Your task to perform on an android device: set the timer Image 0: 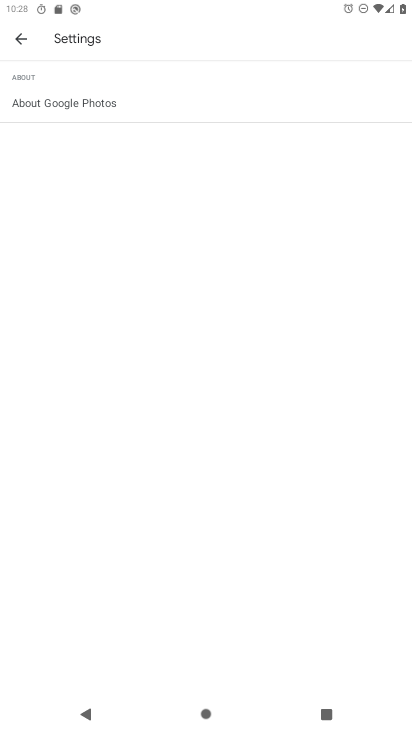
Step 0: press home button
Your task to perform on an android device: set the timer Image 1: 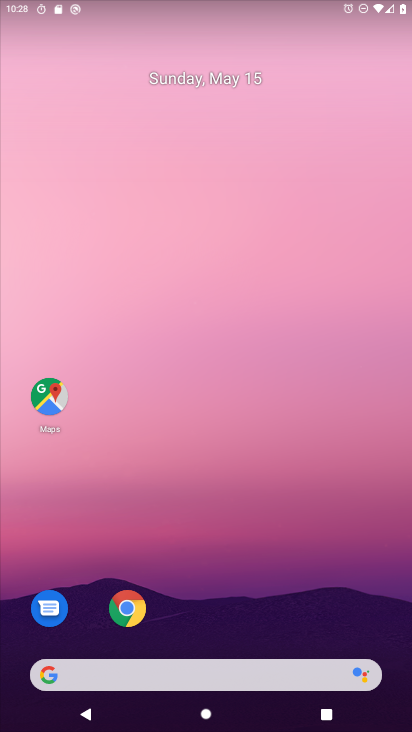
Step 1: drag from (374, 640) to (368, 115)
Your task to perform on an android device: set the timer Image 2: 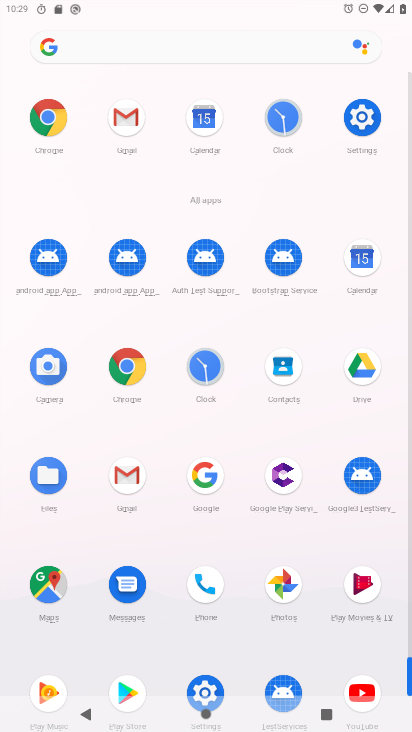
Step 2: click (285, 110)
Your task to perform on an android device: set the timer Image 3: 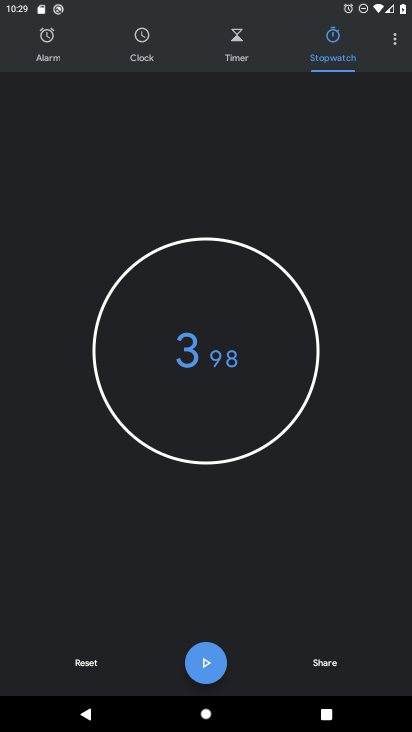
Step 3: click (272, 47)
Your task to perform on an android device: set the timer Image 4: 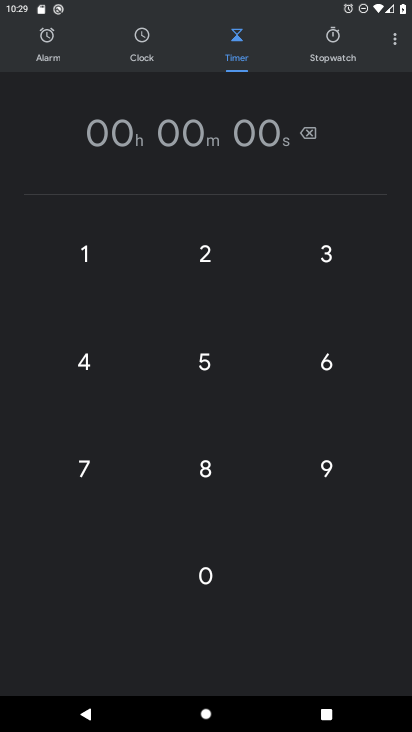
Step 4: click (88, 268)
Your task to perform on an android device: set the timer Image 5: 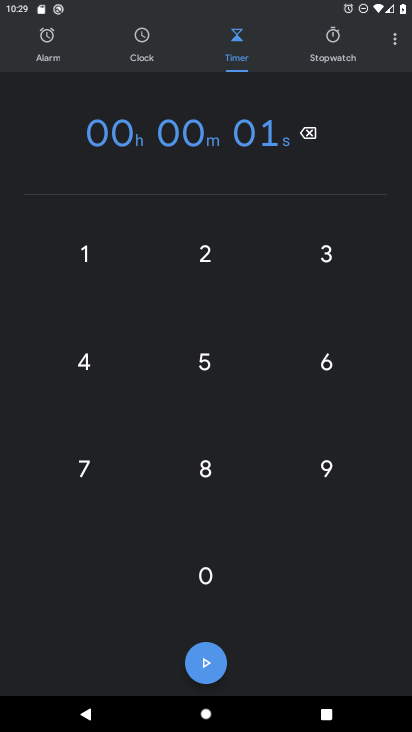
Step 5: click (212, 370)
Your task to perform on an android device: set the timer Image 6: 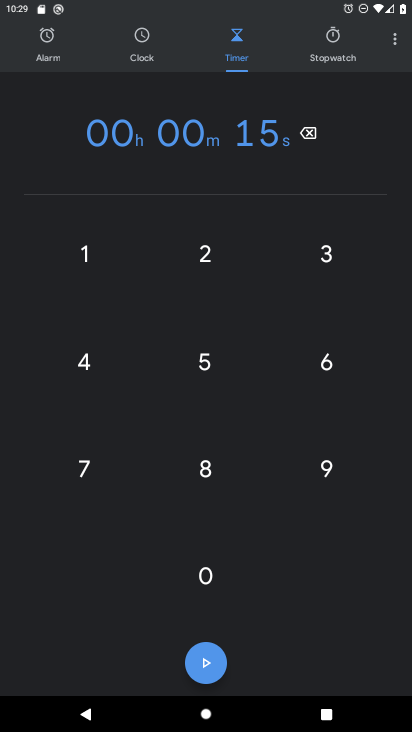
Step 6: click (215, 660)
Your task to perform on an android device: set the timer Image 7: 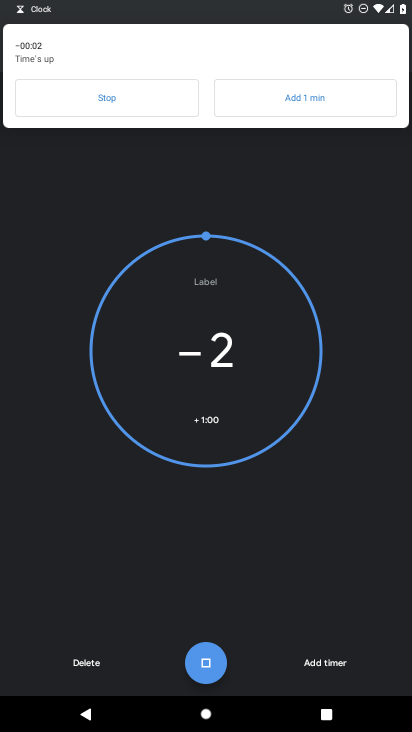
Step 7: click (112, 105)
Your task to perform on an android device: set the timer Image 8: 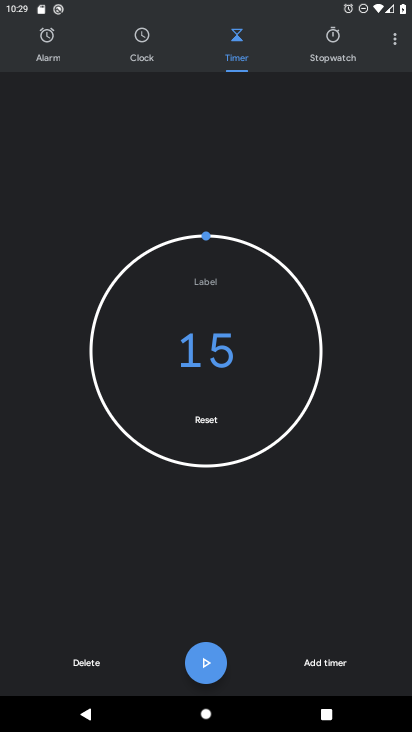
Step 8: task complete